Your task to perform on an android device: Open Google Chrome and click the shortcut for Amazon.com Image 0: 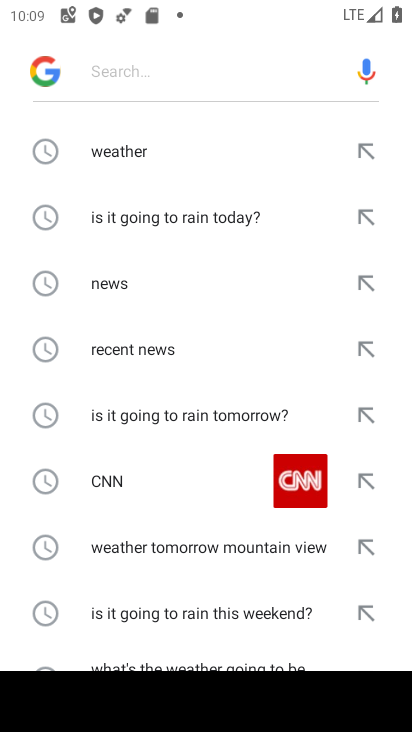
Step 0: press home button
Your task to perform on an android device: Open Google Chrome and click the shortcut for Amazon.com Image 1: 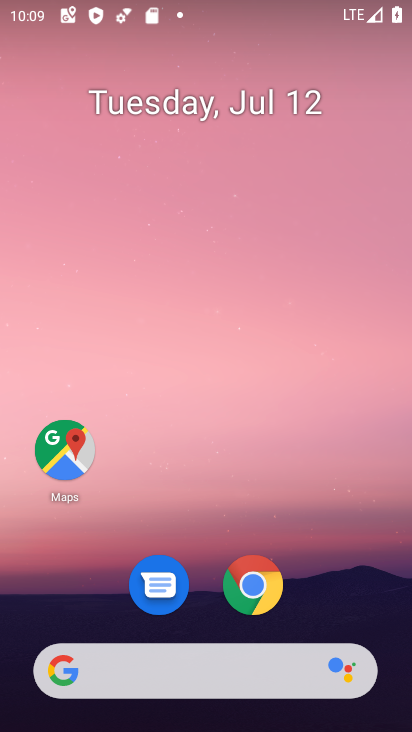
Step 1: click (257, 593)
Your task to perform on an android device: Open Google Chrome and click the shortcut for Amazon.com Image 2: 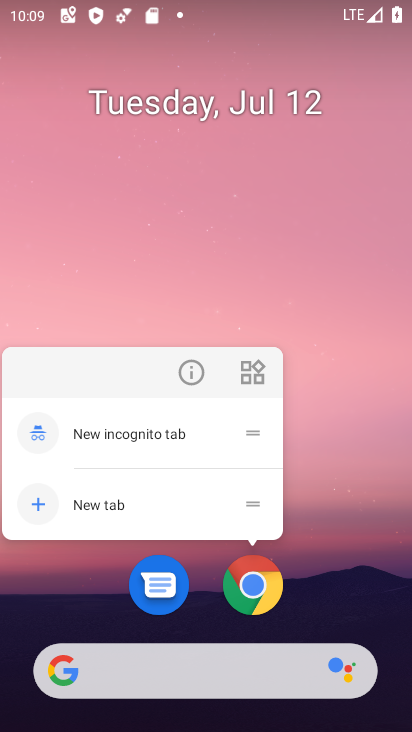
Step 2: click (262, 587)
Your task to perform on an android device: Open Google Chrome and click the shortcut for Amazon.com Image 3: 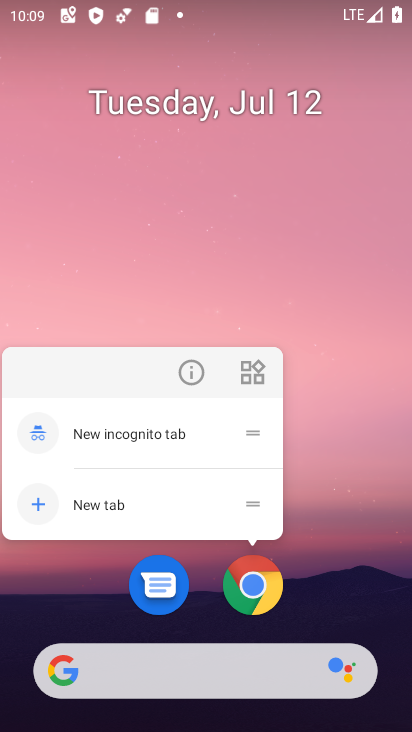
Step 3: click (250, 578)
Your task to perform on an android device: Open Google Chrome and click the shortcut for Amazon.com Image 4: 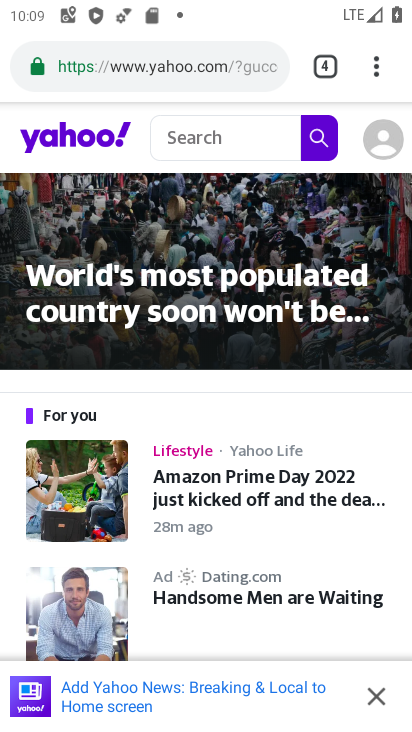
Step 4: drag from (375, 68) to (284, 129)
Your task to perform on an android device: Open Google Chrome and click the shortcut for Amazon.com Image 5: 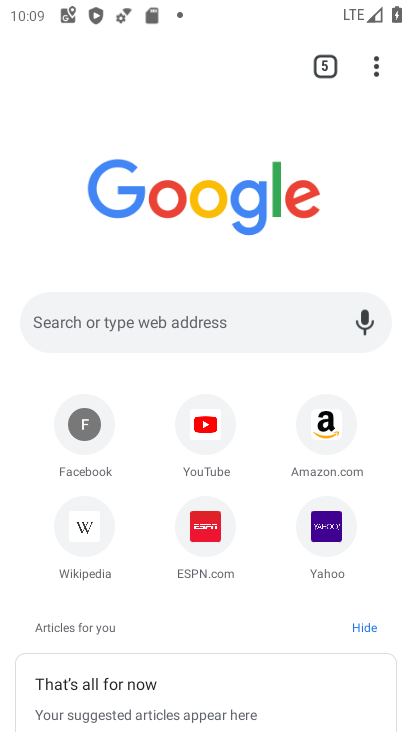
Step 5: click (325, 423)
Your task to perform on an android device: Open Google Chrome and click the shortcut for Amazon.com Image 6: 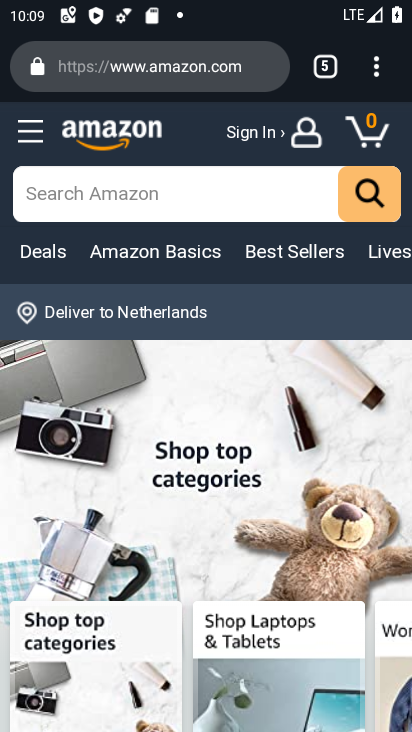
Step 6: task complete